Your task to perform on an android device: empty trash in google photos Image 0: 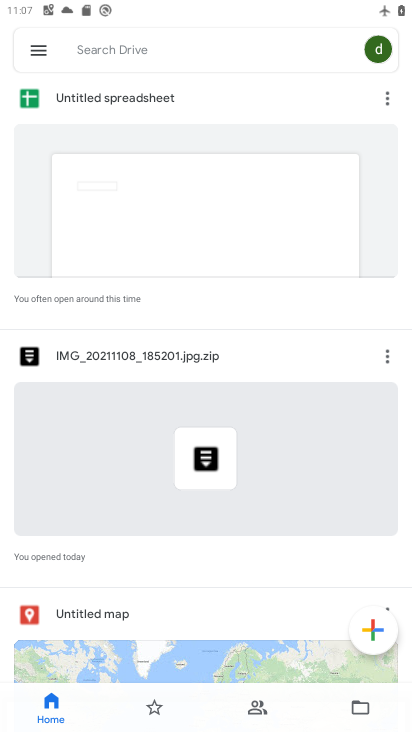
Step 0: press home button
Your task to perform on an android device: empty trash in google photos Image 1: 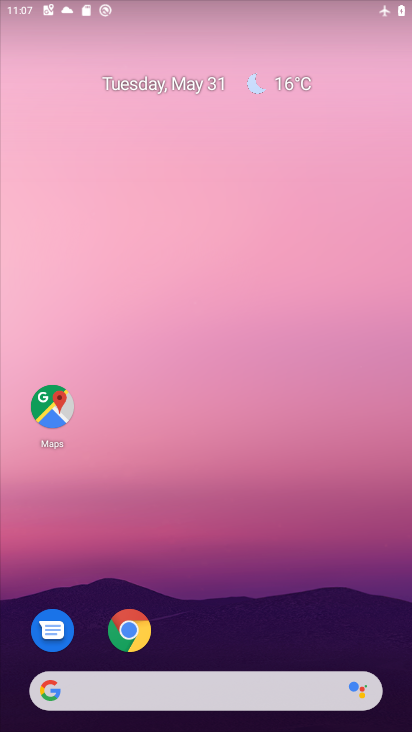
Step 1: drag from (277, 584) to (182, 4)
Your task to perform on an android device: empty trash in google photos Image 2: 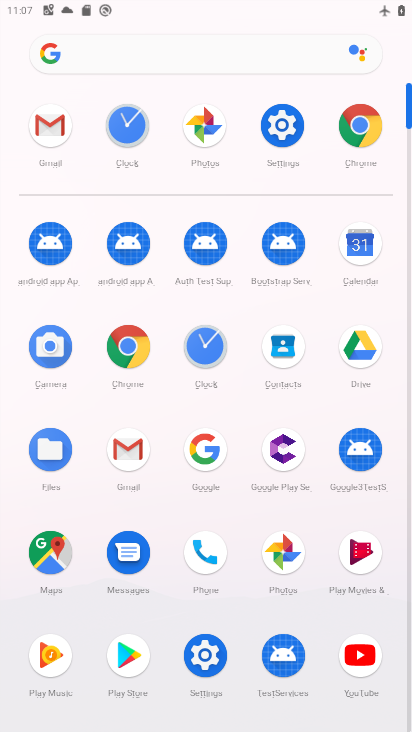
Step 2: click (198, 121)
Your task to perform on an android device: empty trash in google photos Image 3: 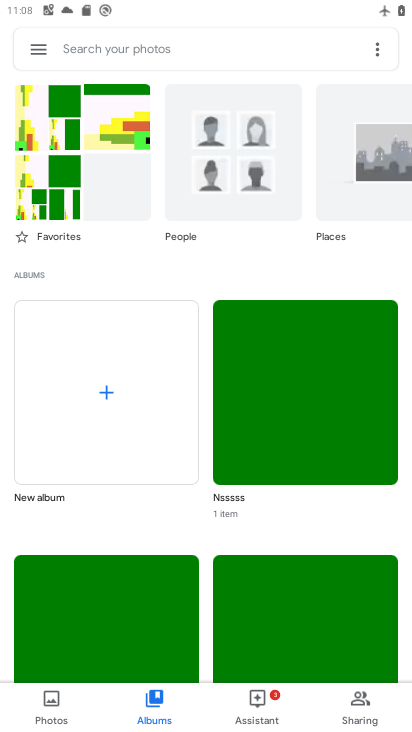
Step 3: click (42, 46)
Your task to perform on an android device: empty trash in google photos Image 4: 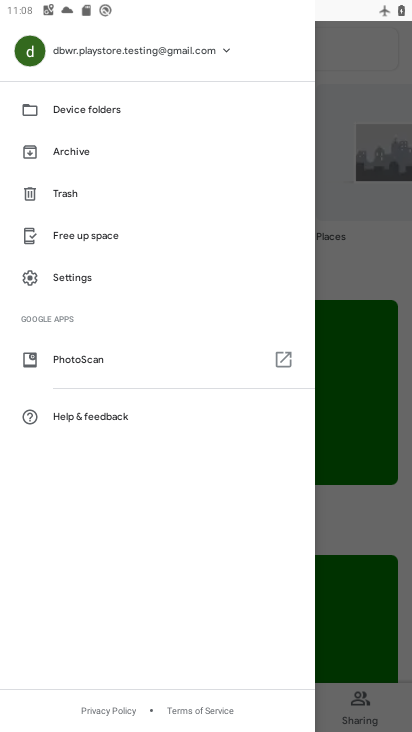
Step 4: click (67, 195)
Your task to perform on an android device: empty trash in google photos Image 5: 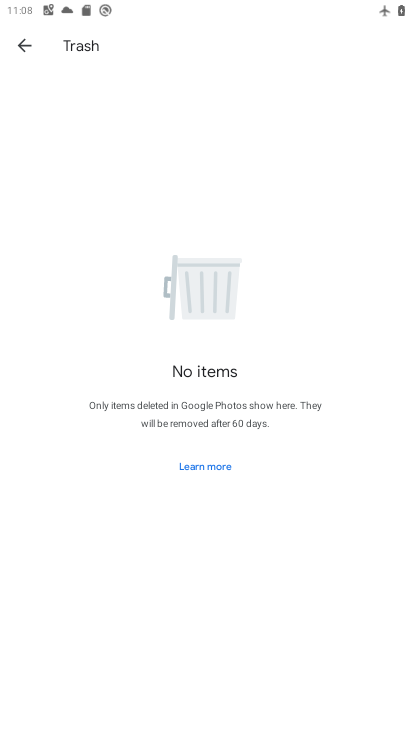
Step 5: task complete